Your task to perform on an android device: Go to sound settings Image 0: 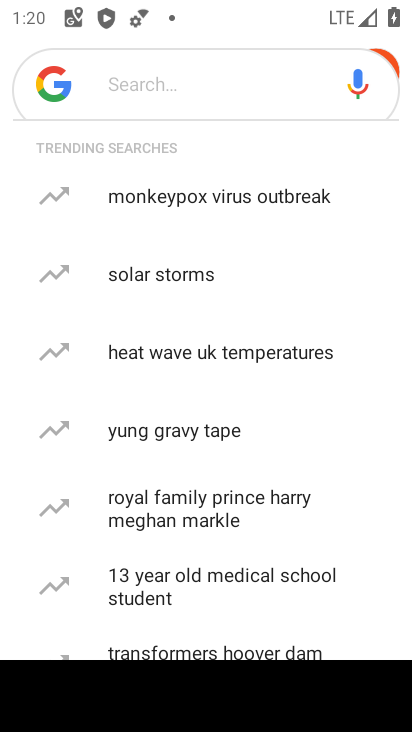
Step 0: press home button
Your task to perform on an android device: Go to sound settings Image 1: 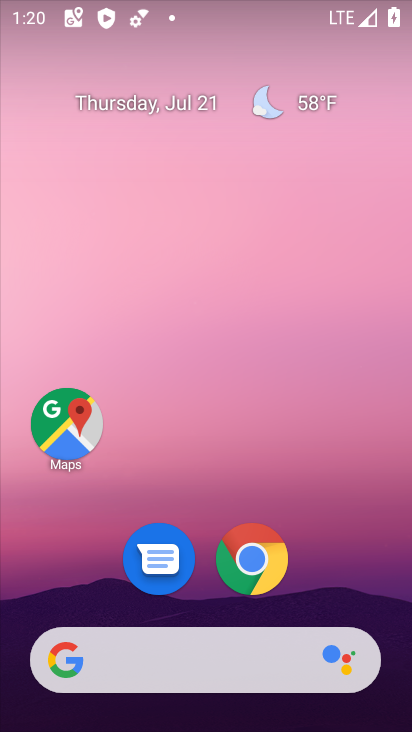
Step 1: drag from (359, 544) to (367, 272)
Your task to perform on an android device: Go to sound settings Image 2: 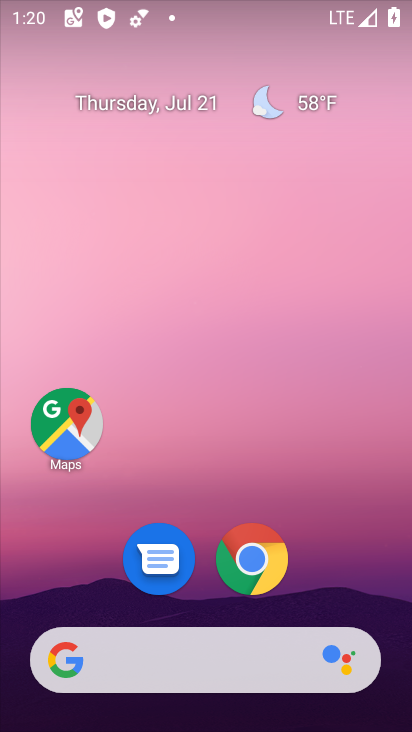
Step 2: drag from (377, 520) to (382, 158)
Your task to perform on an android device: Go to sound settings Image 3: 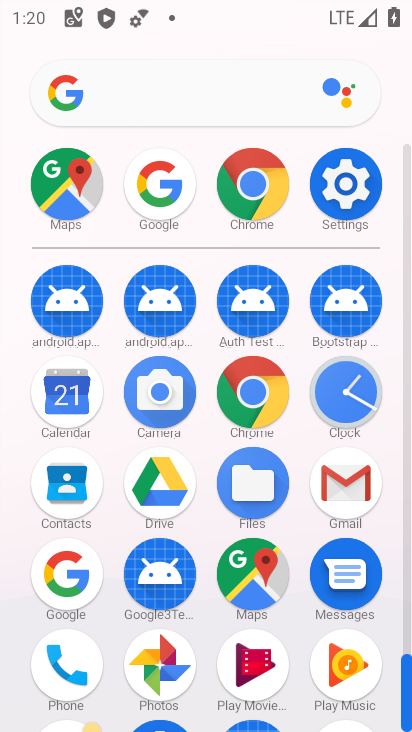
Step 3: click (364, 171)
Your task to perform on an android device: Go to sound settings Image 4: 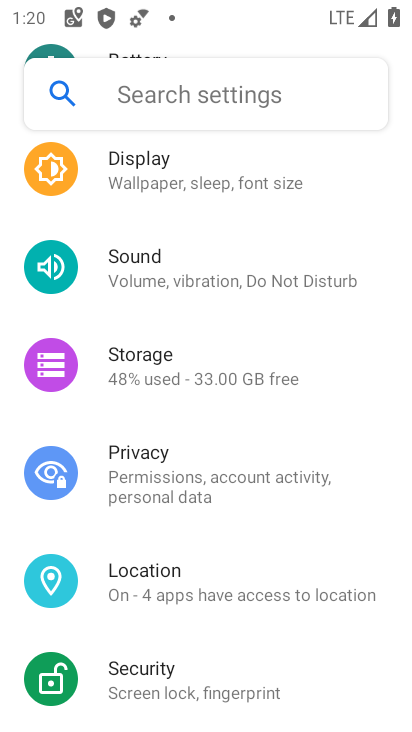
Step 4: drag from (356, 185) to (371, 272)
Your task to perform on an android device: Go to sound settings Image 5: 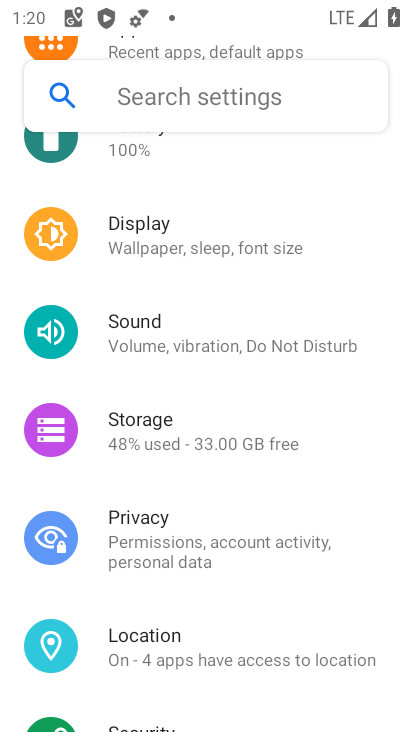
Step 5: drag from (373, 177) to (374, 305)
Your task to perform on an android device: Go to sound settings Image 6: 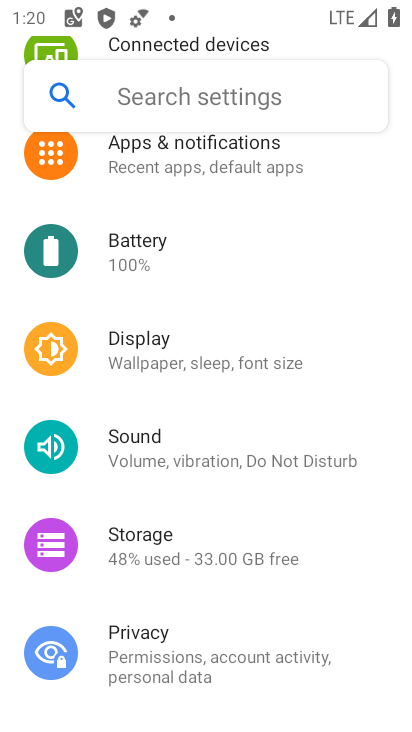
Step 6: drag from (368, 197) to (356, 330)
Your task to perform on an android device: Go to sound settings Image 7: 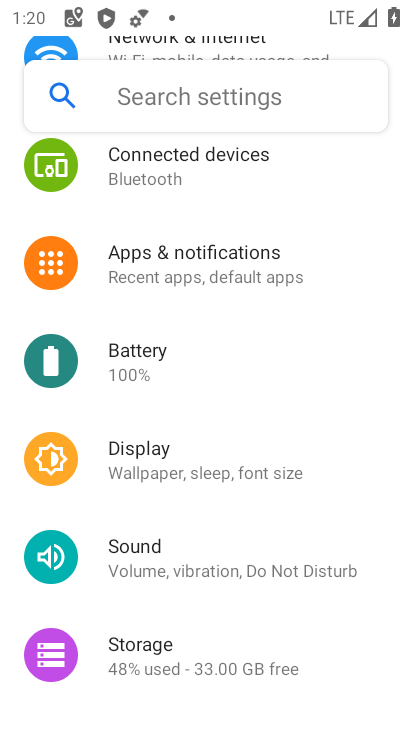
Step 7: drag from (345, 215) to (345, 356)
Your task to perform on an android device: Go to sound settings Image 8: 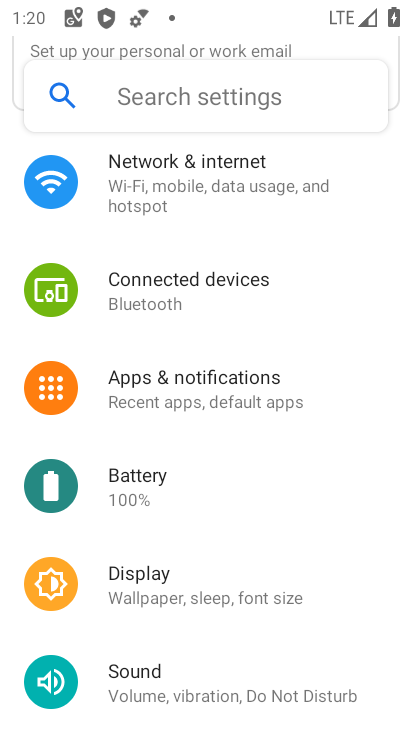
Step 8: drag from (355, 240) to (349, 365)
Your task to perform on an android device: Go to sound settings Image 9: 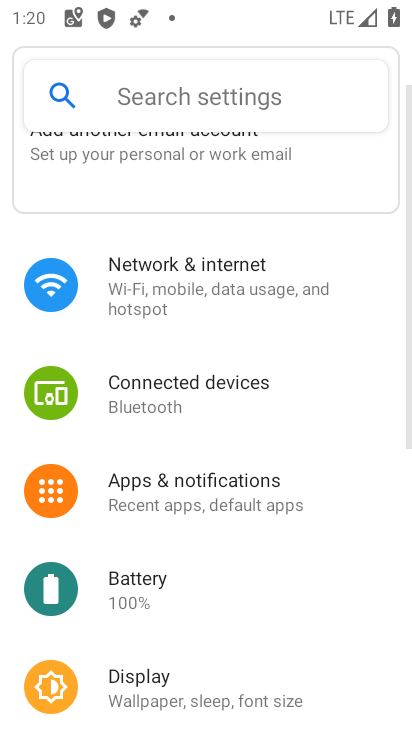
Step 9: drag from (344, 477) to (345, 393)
Your task to perform on an android device: Go to sound settings Image 10: 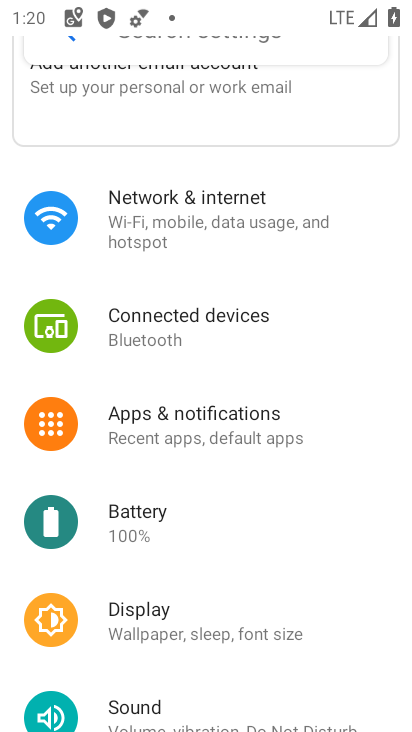
Step 10: drag from (342, 559) to (344, 411)
Your task to perform on an android device: Go to sound settings Image 11: 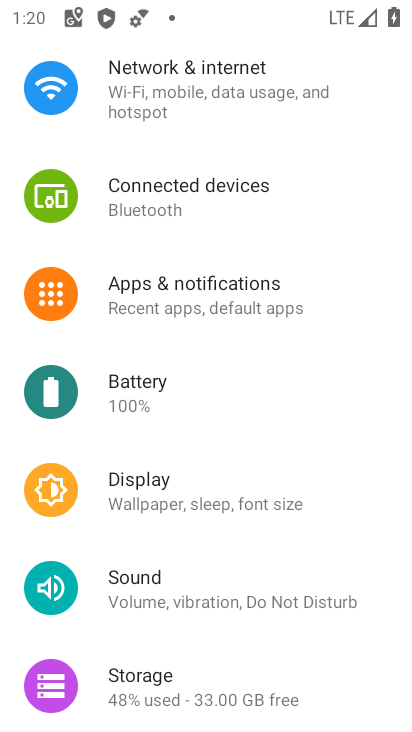
Step 11: drag from (344, 522) to (346, 432)
Your task to perform on an android device: Go to sound settings Image 12: 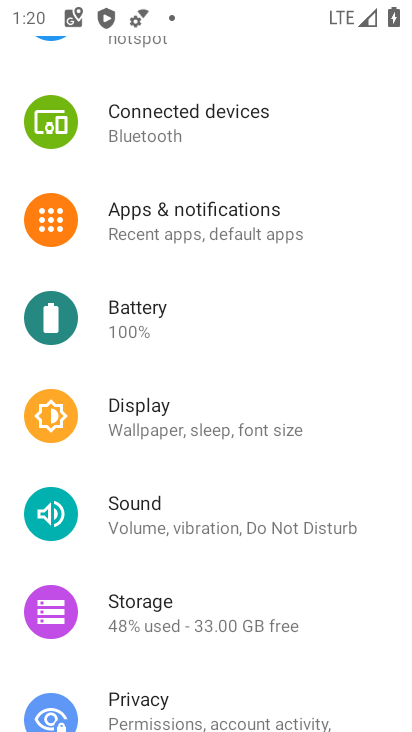
Step 12: drag from (348, 564) to (348, 457)
Your task to perform on an android device: Go to sound settings Image 13: 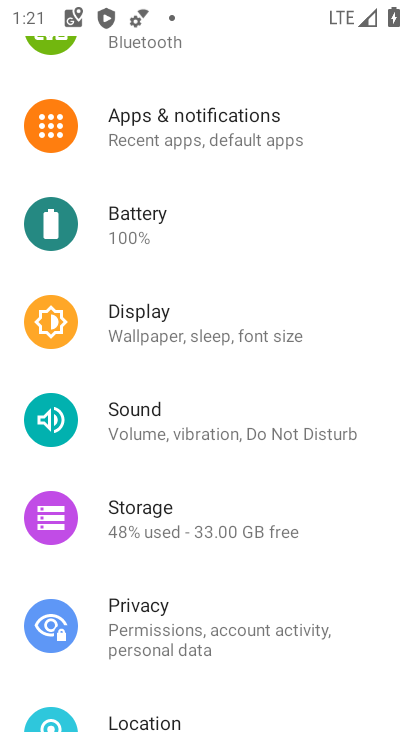
Step 13: drag from (348, 589) to (353, 525)
Your task to perform on an android device: Go to sound settings Image 14: 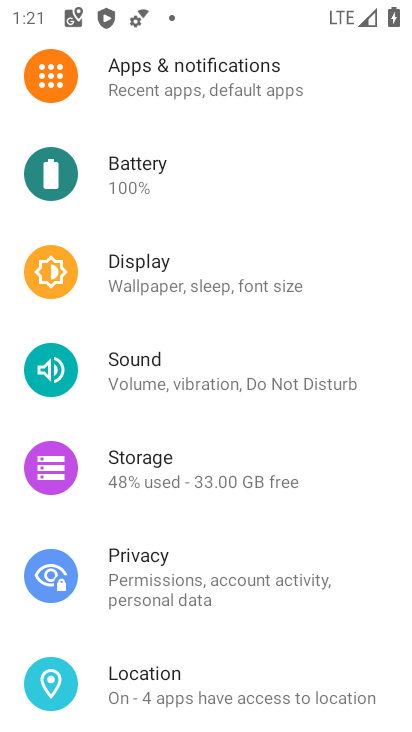
Step 14: drag from (357, 605) to (359, 524)
Your task to perform on an android device: Go to sound settings Image 15: 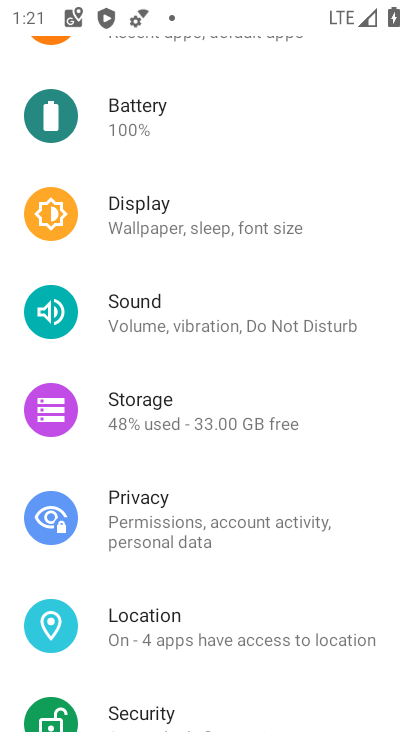
Step 15: drag from (359, 601) to (361, 519)
Your task to perform on an android device: Go to sound settings Image 16: 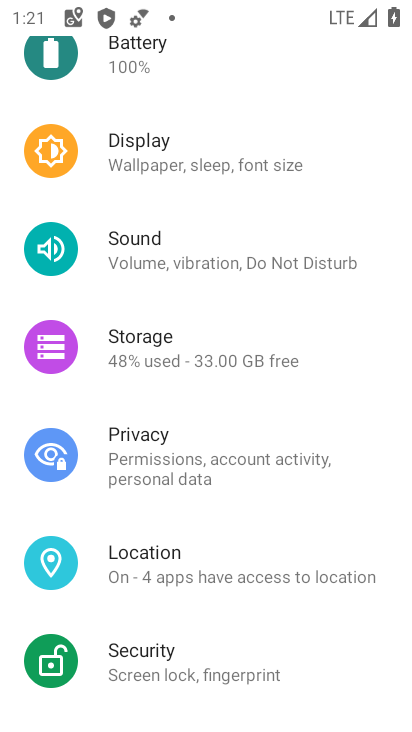
Step 16: click (324, 272)
Your task to perform on an android device: Go to sound settings Image 17: 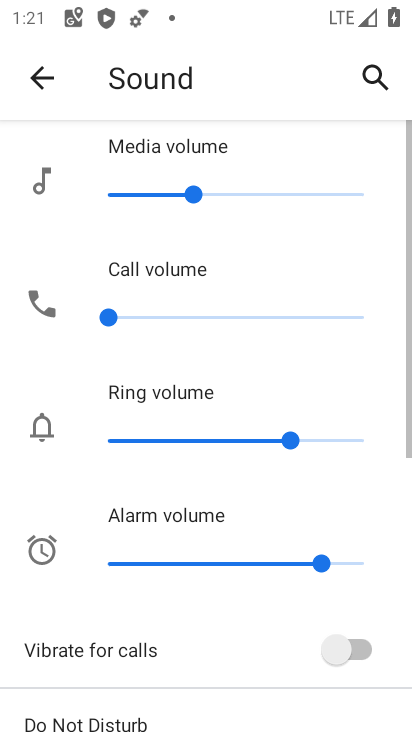
Step 17: task complete